Your task to perform on an android device: Empty the shopping cart on amazon.com. Add "logitech g pro" to the cart on amazon.com, then select checkout. Image 0: 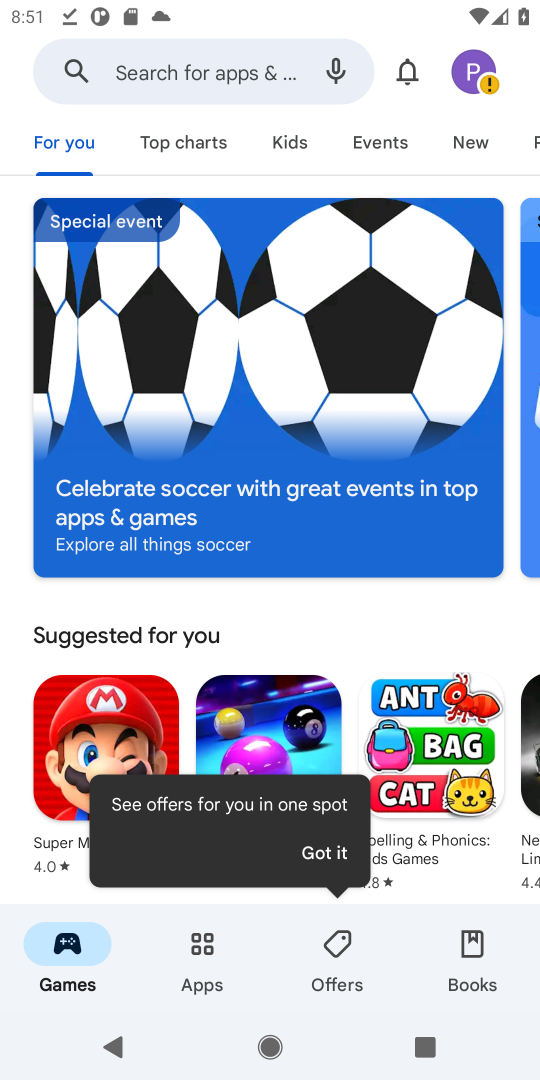
Step 0: press home button
Your task to perform on an android device: Empty the shopping cart on amazon.com. Add "logitech g pro" to the cart on amazon.com, then select checkout. Image 1: 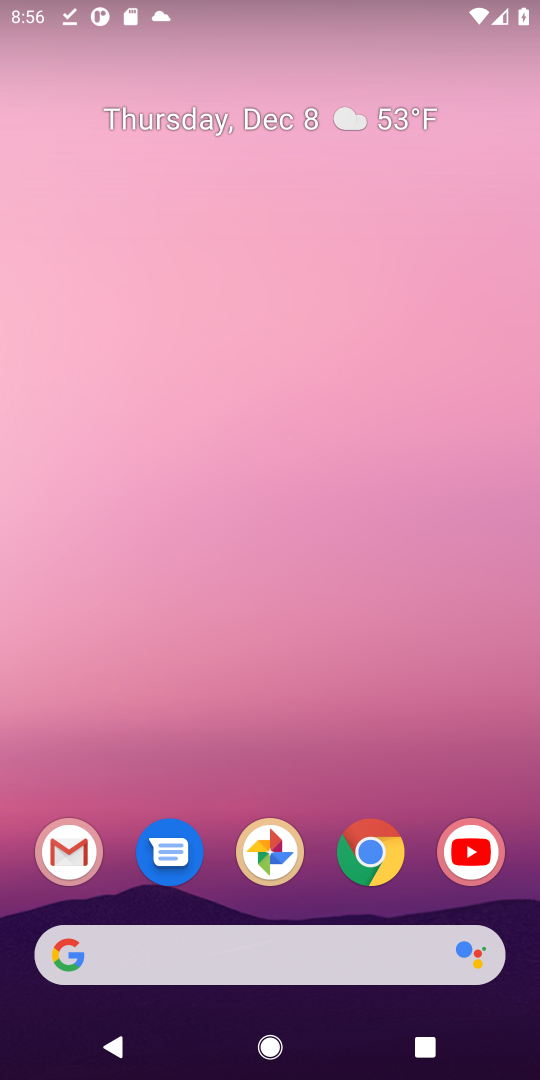
Step 1: click (244, 958)
Your task to perform on an android device: Empty the shopping cart on amazon.com. Add "logitech g pro" to the cart on amazon.com, then select checkout. Image 2: 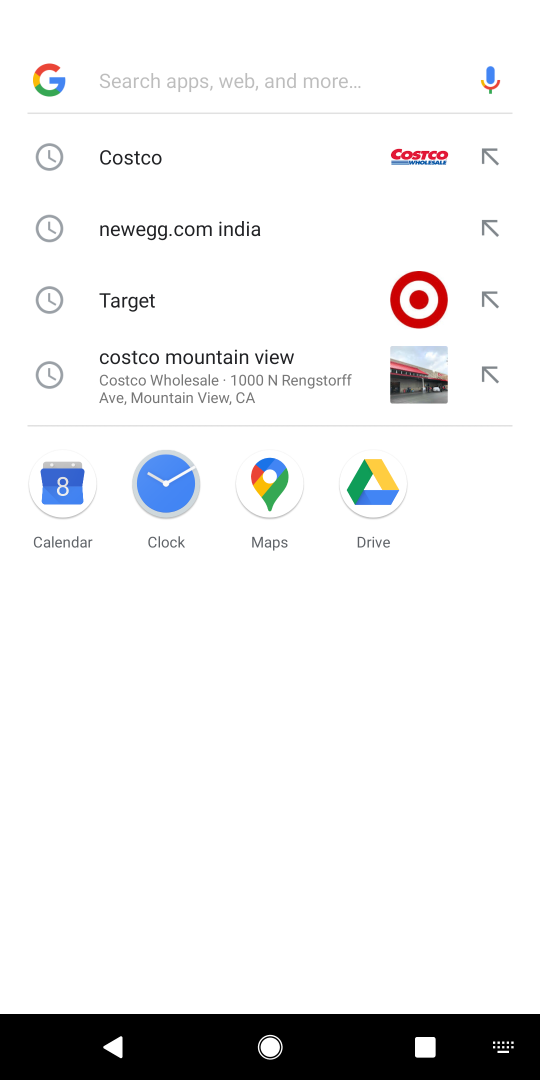
Step 2: click (193, 143)
Your task to perform on an android device: Empty the shopping cart on amazon.com. Add "logitech g pro" to the cart on amazon.com, then select checkout. Image 3: 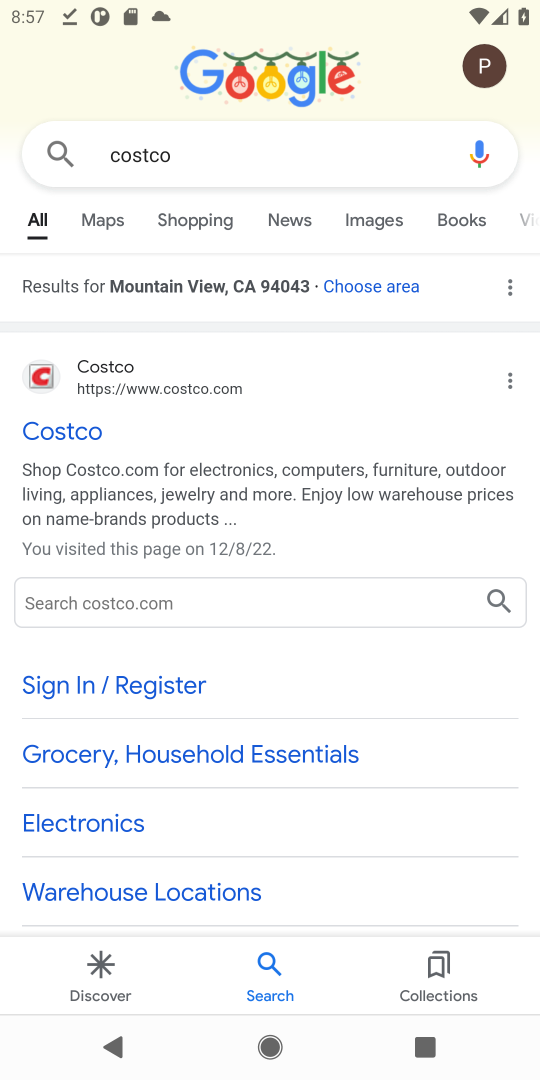
Step 3: click (98, 437)
Your task to perform on an android device: Empty the shopping cart on amazon.com. Add "logitech g pro" to the cart on amazon.com, then select checkout. Image 4: 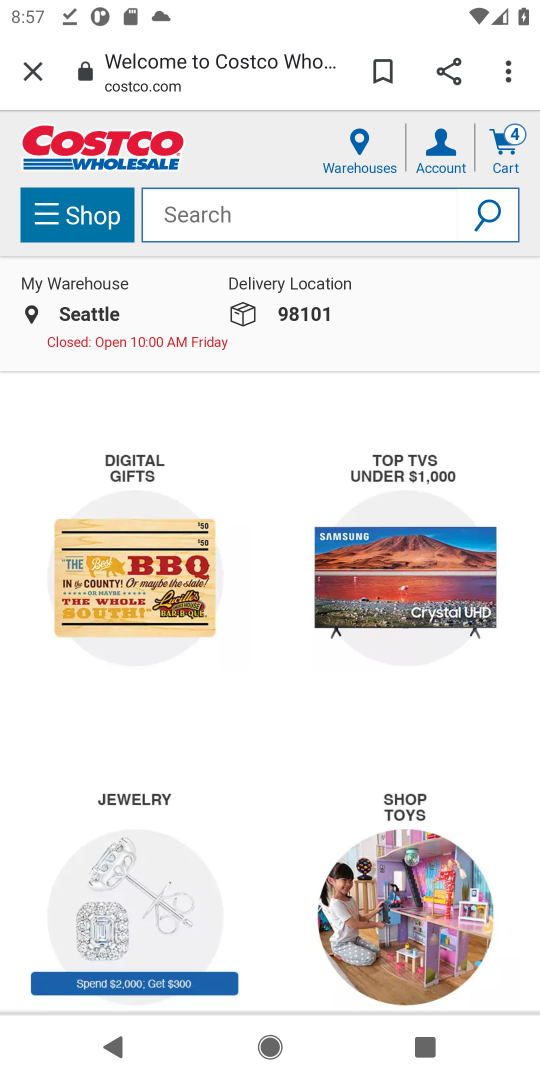
Step 4: press home button
Your task to perform on an android device: Empty the shopping cart on amazon.com. Add "logitech g pro" to the cart on amazon.com, then select checkout. Image 5: 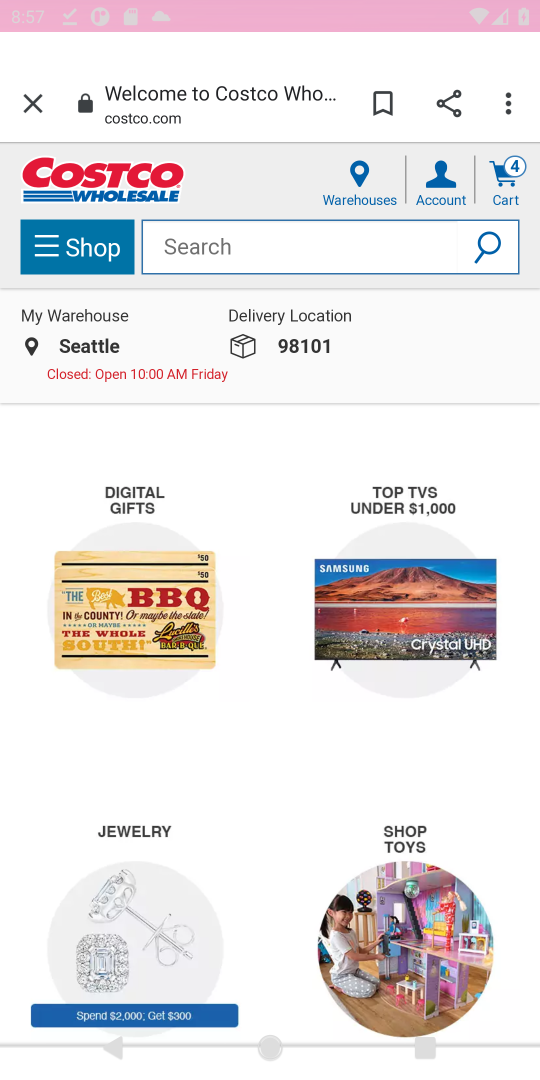
Step 5: press home button
Your task to perform on an android device: Empty the shopping cart on amazon.com. Add "logitech g pro" to the cart on amazon.com, then select checkout. Image 6: 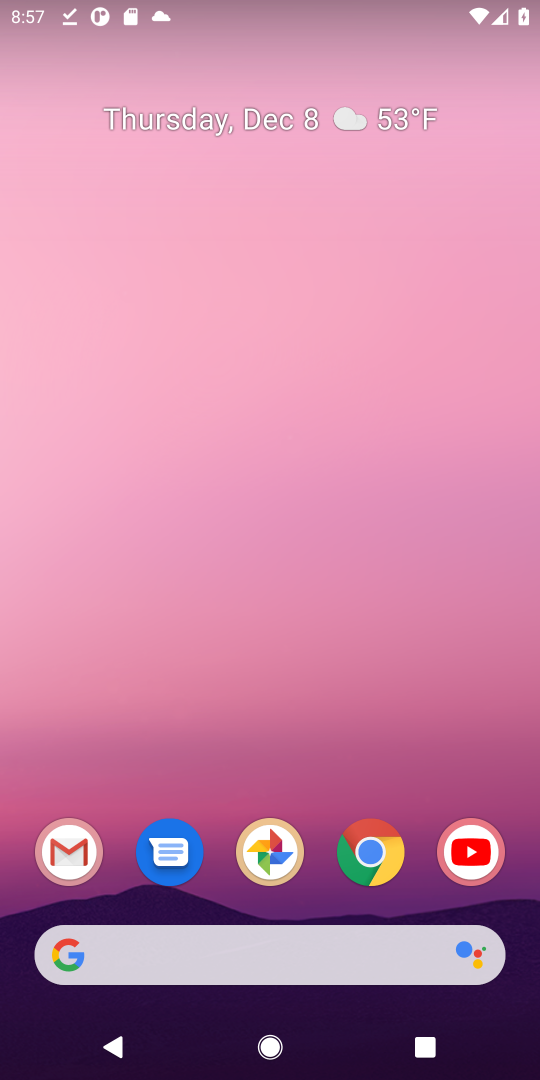
Step 6: press home button
Your task to perform on an android device: Empty the shopping cart on amazon.com. Add "logitech g pro" to the cart on amazon.com, then select checkout. Image 7: 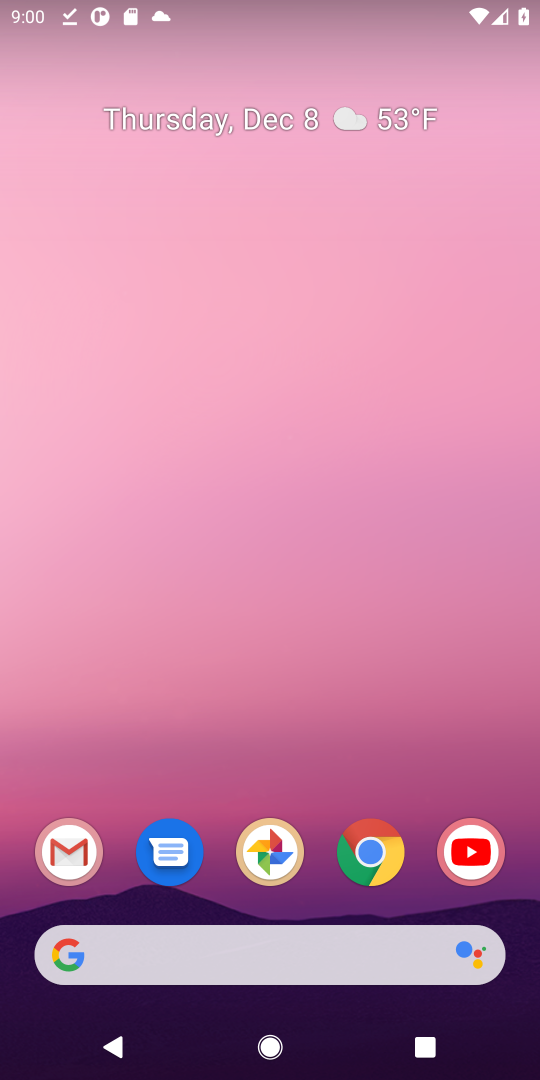
Step 7: click (201, 964)
Your task to perform on an android device: Empty the shopping cart on amazon.com. Add "logitech g pro" to the cart on amazon.com, then select checkout. Image 8: 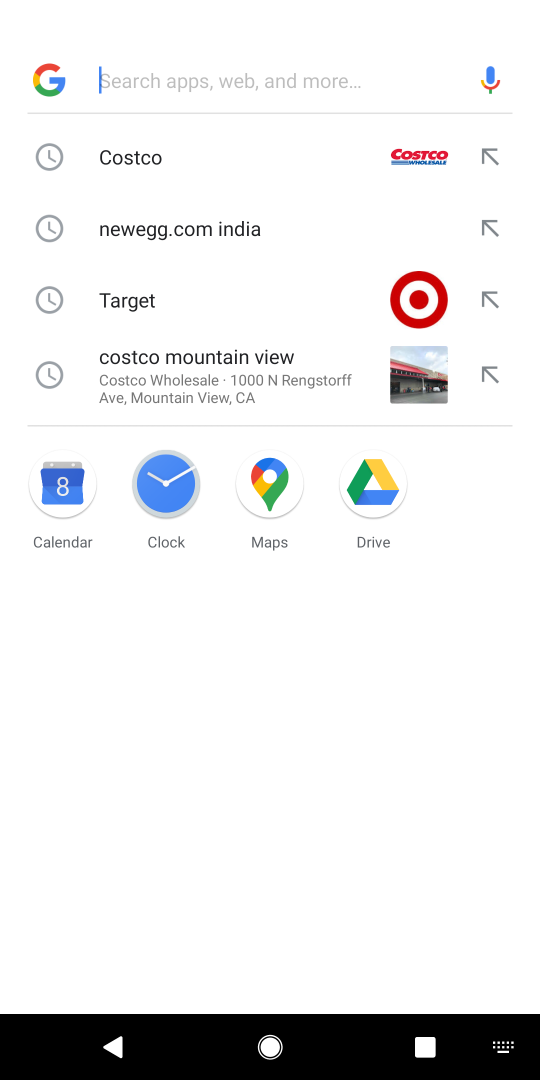
Step 8: type "amazon"
Your task to perform on an android device: Empty the shopping cart on amazon.com. Add "logitech g pro" to the cart on amazon.com, then select checkout. Image 9: 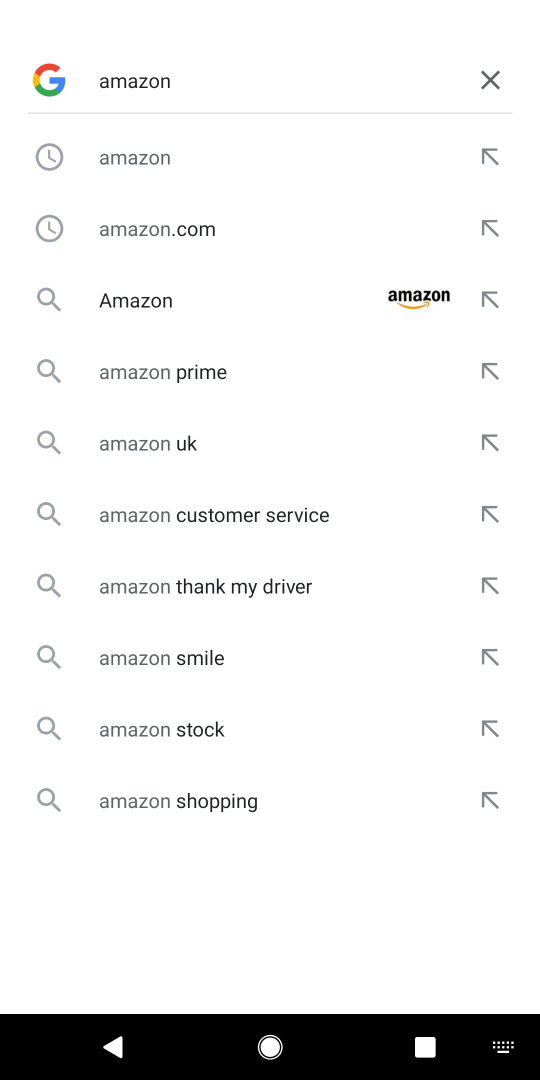
Step 9: click (238, 308)
Your task to perform on an android device: Empty the shopping cart on amazon.com. Add "logitech g pro" to the cart on amazon.com, then select checkout. Image 10: 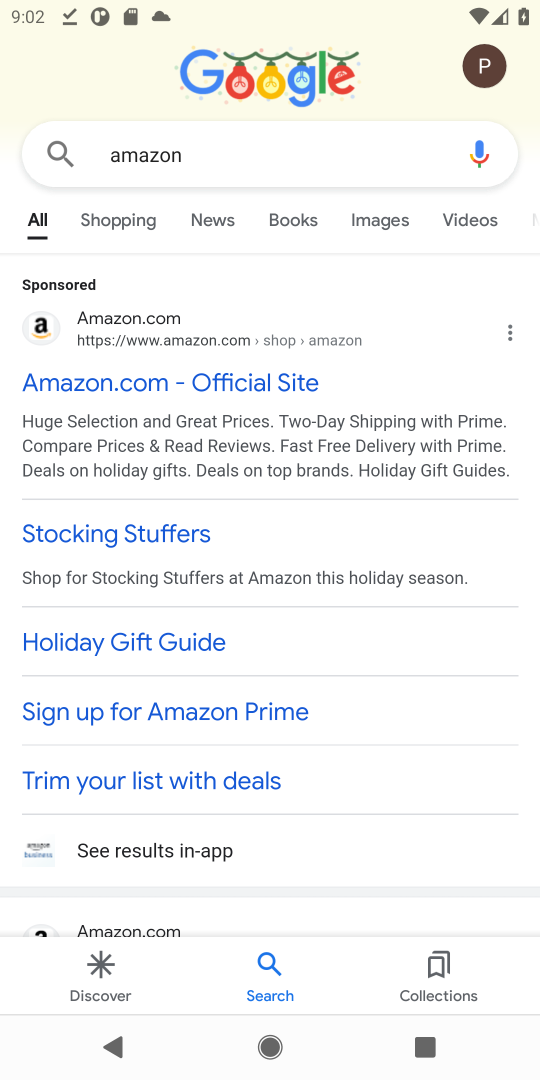
Step 10: click (166, 365)
Your task to perform on an android device: Empty the shopping cart on amazon.com. Add "logitech g pro" to the cart on amazon.com, then select checkout. Image 11: 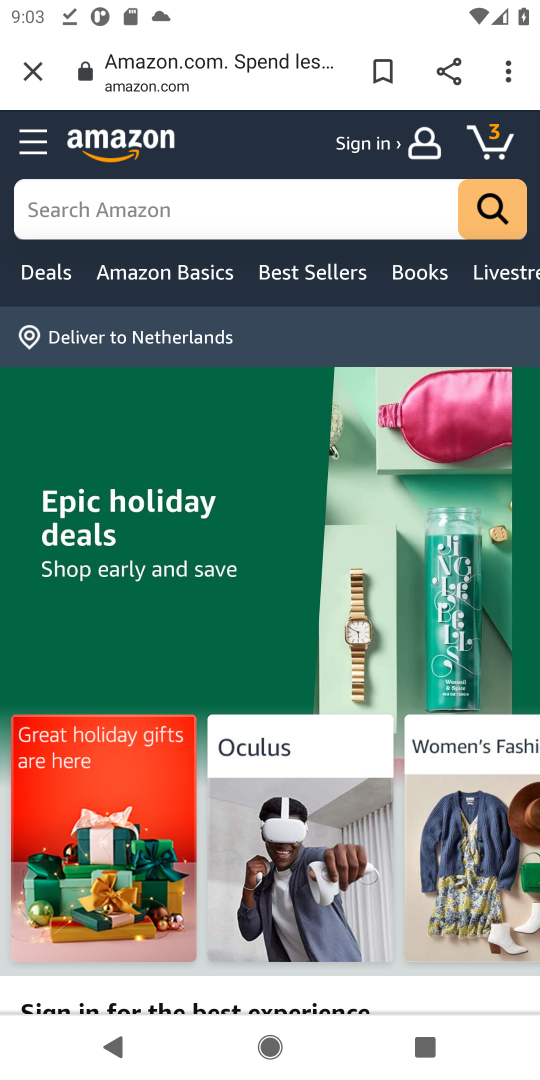
Step 11: task complete